Your task to perform on an android device: toggle sleep mode Image 0: 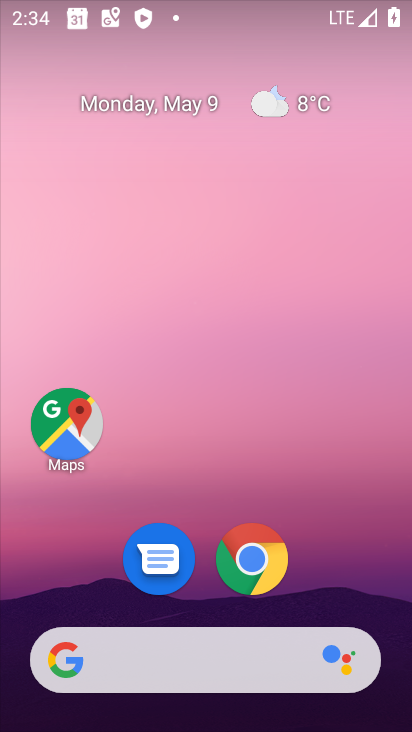
Step 0: drag from (318, 582) to (210, 92)
Your task to perform on an android device: toggle sleep mode Image 1: 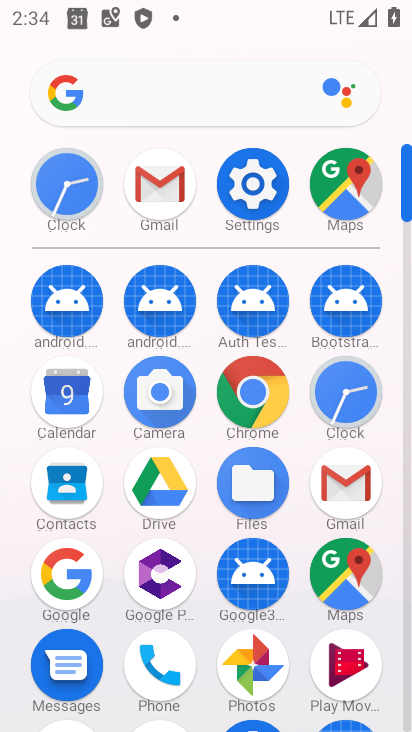
Step 1: click (244, 190)
Your task to perform on an android device: toggle sleep mode Image 2: 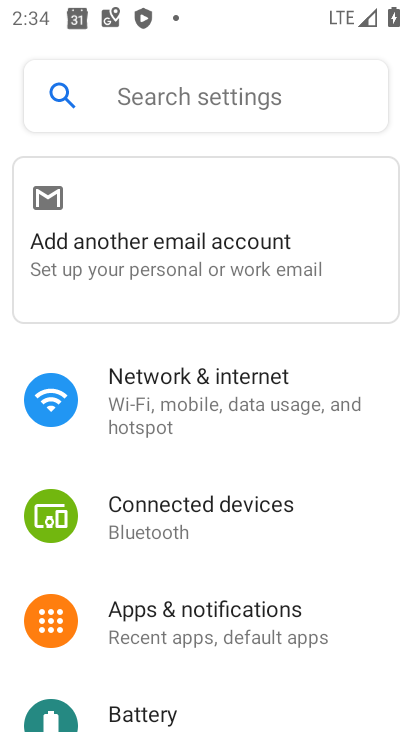
Step 2: drag from (259, 554) to (182, 176)
Your task to perform on an android device: toggle sleep mode Image 3: 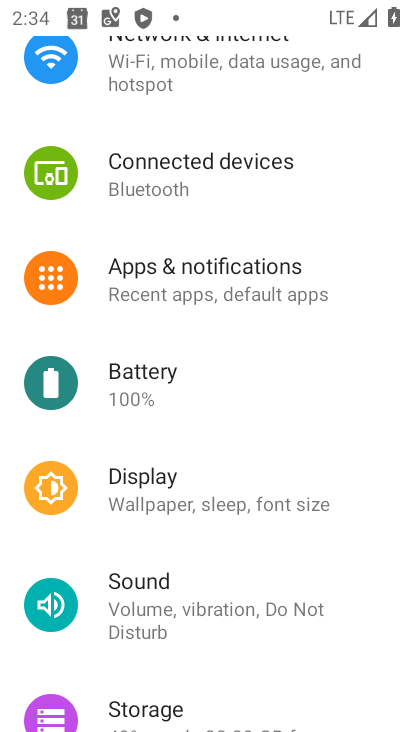
Step 3: click (136, 467)
Your task to perform on an android device: toggle sleep mode Image 4: 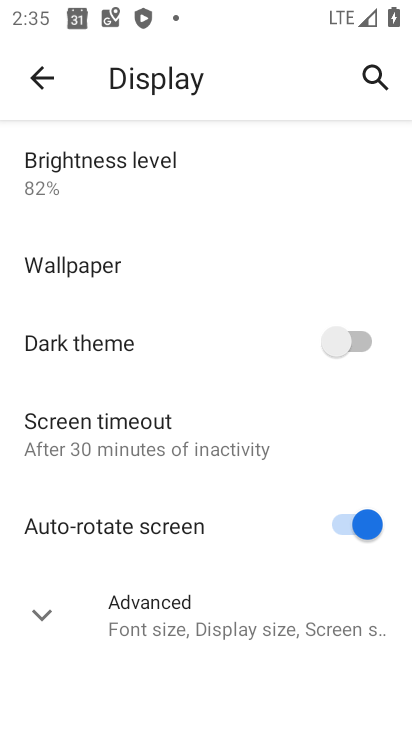
Step 4: task complete